Your task to perform on an android device: turn off picture-in-picture Image 0: 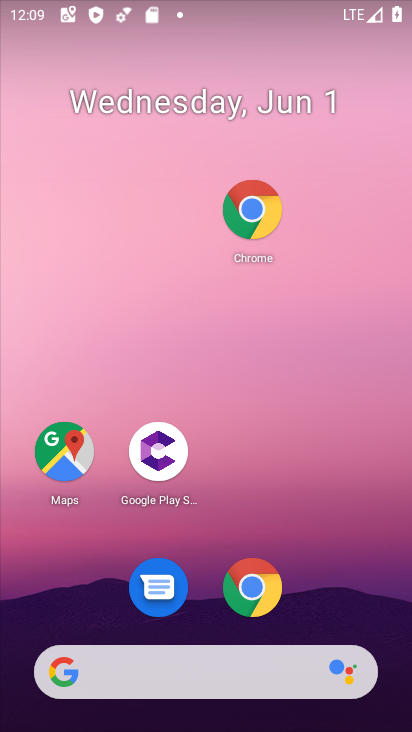
Step 0: click (242, 574)
Your task to perform on an android device: turn off picture-in-picture Image 1: 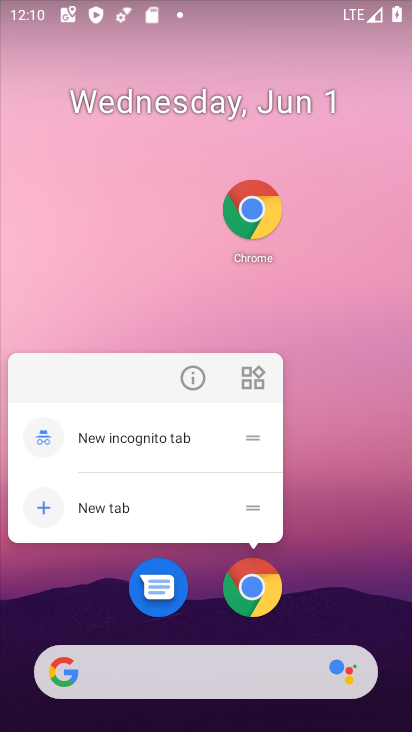
Step 1: click (196, 376)
Your task to perform on an android device: turn off picture-in-picture Image 2: 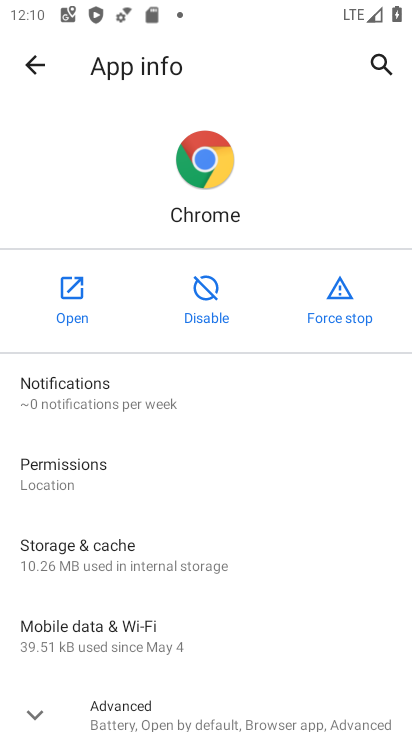
Step 2: drag from (220, 585) to (218, 352)
Your task to perform on an android device: turn off picture-in-picture Image 3: 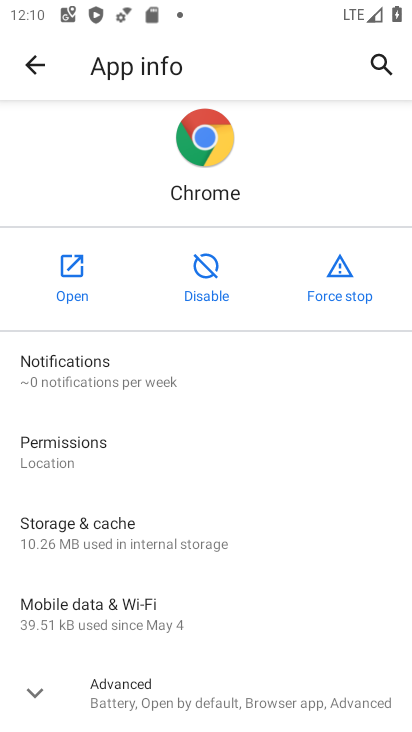
Step 3: click (173, 683)
Your task to perform on an android device: turn off picture-in-picture Image 4: 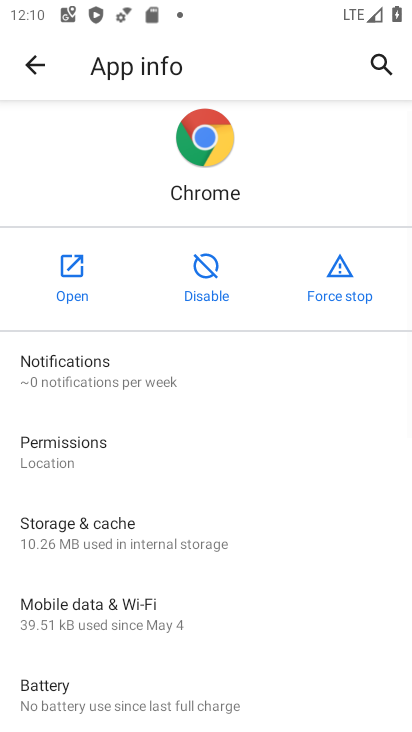
Step 4: drag from (187, 661) to (225, 435)
Your task to perform on an android device: turn off picture-in-picture Image 5: 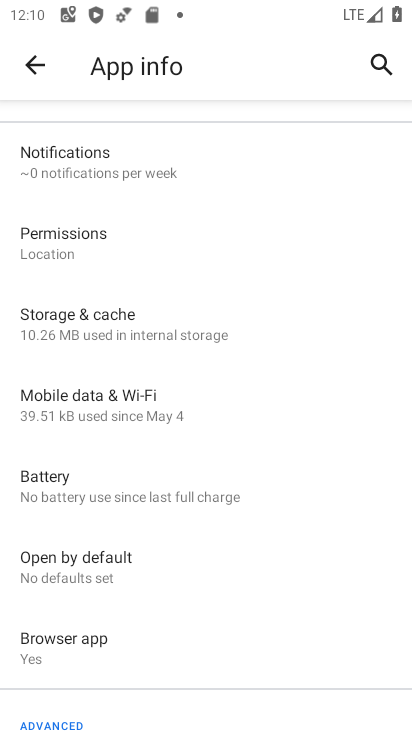
Step 5: drag from (197, 617) to (235, 257)
Your task to perform on an android device: turn off picture-in-picture Image 6: 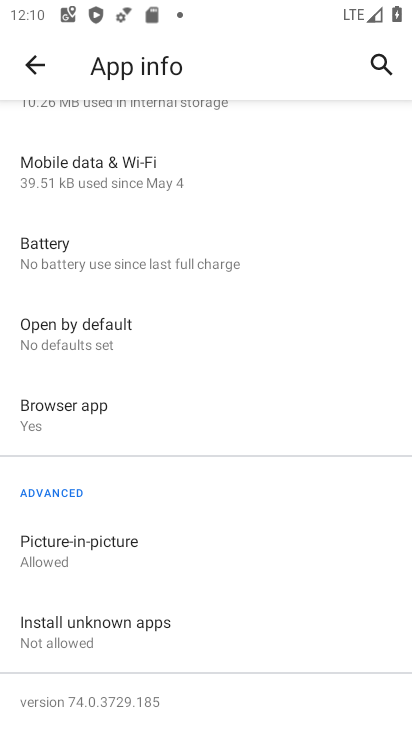
Step 6: click (105, 544)
Your task to perform on an android device: turn off picture-in-picture Image 7: 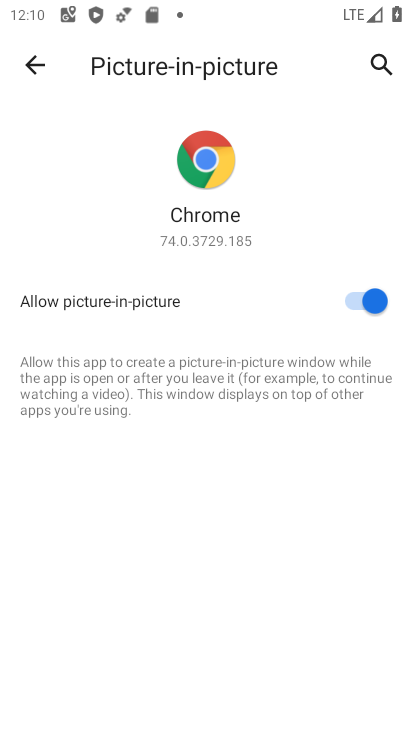
Step 7: click (355, 304)
Your task to perform on an android device: turn off picture-in-picture Image 8: 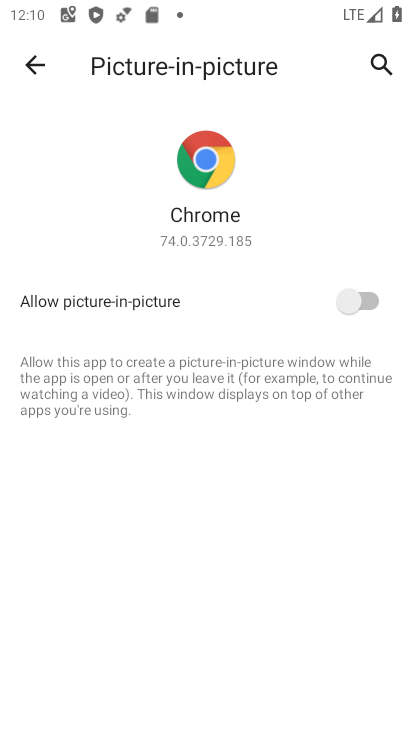
Step 8: task complete